Your task to perform on an android device: Is it going to rain tomorrow? Image 0: 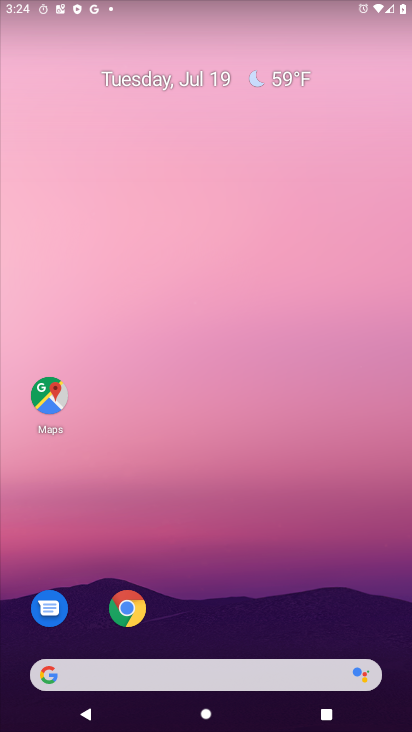
Step 0: drag from (331, 621) to (274, 54)
Your task to perform on an android device: Is it going to rain tomorrow? Image 1: 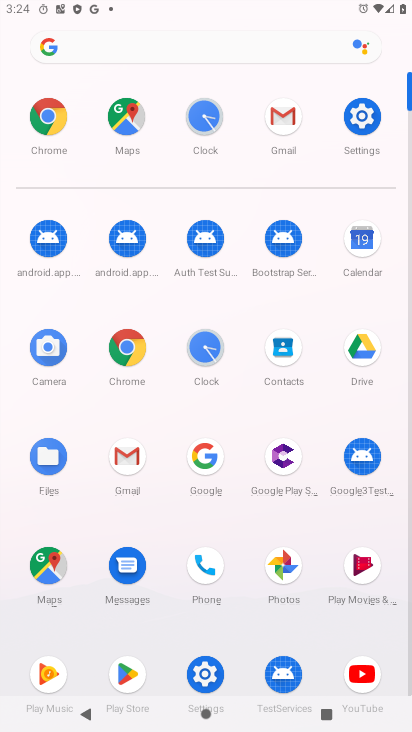
Step 1: click (41, 128)
Your task to perform on an android device: Is it going to rain tomorrow? Image 2: 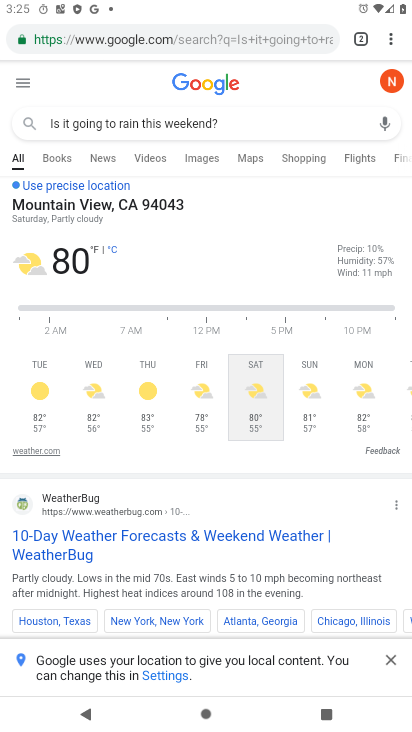
Step 2: click (305, 114)
Your task to perform on an android device: Is it going to rain tomorrow? Image 3: 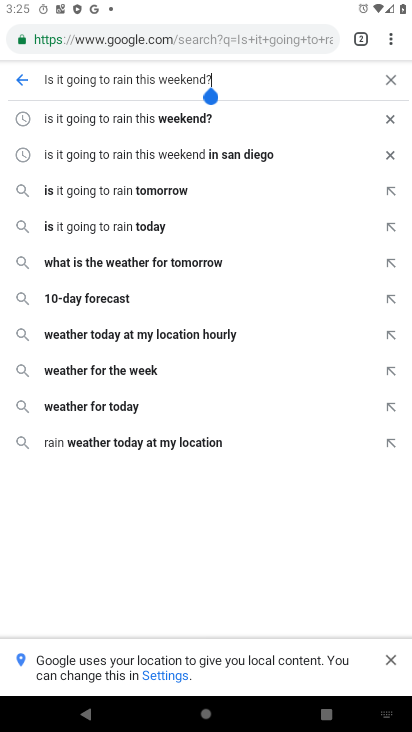
Step 3: click (242, 187)
Your task to perform on an android device: Is it going to rain tomorrow? Image 4: 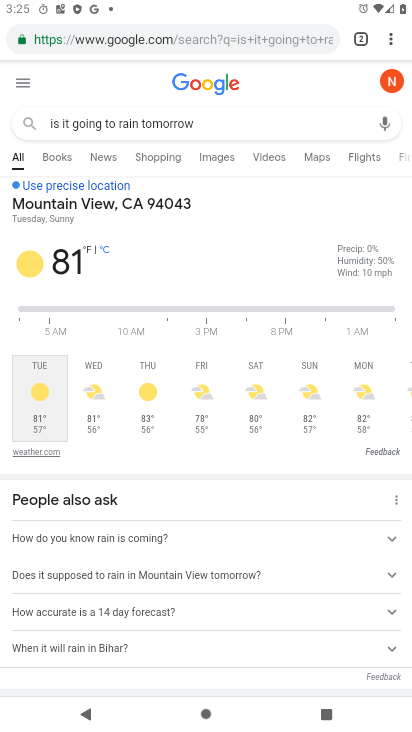
Step 4: task complete